Your task to perform on an android device: turn off translation in the chrome app Image 0: 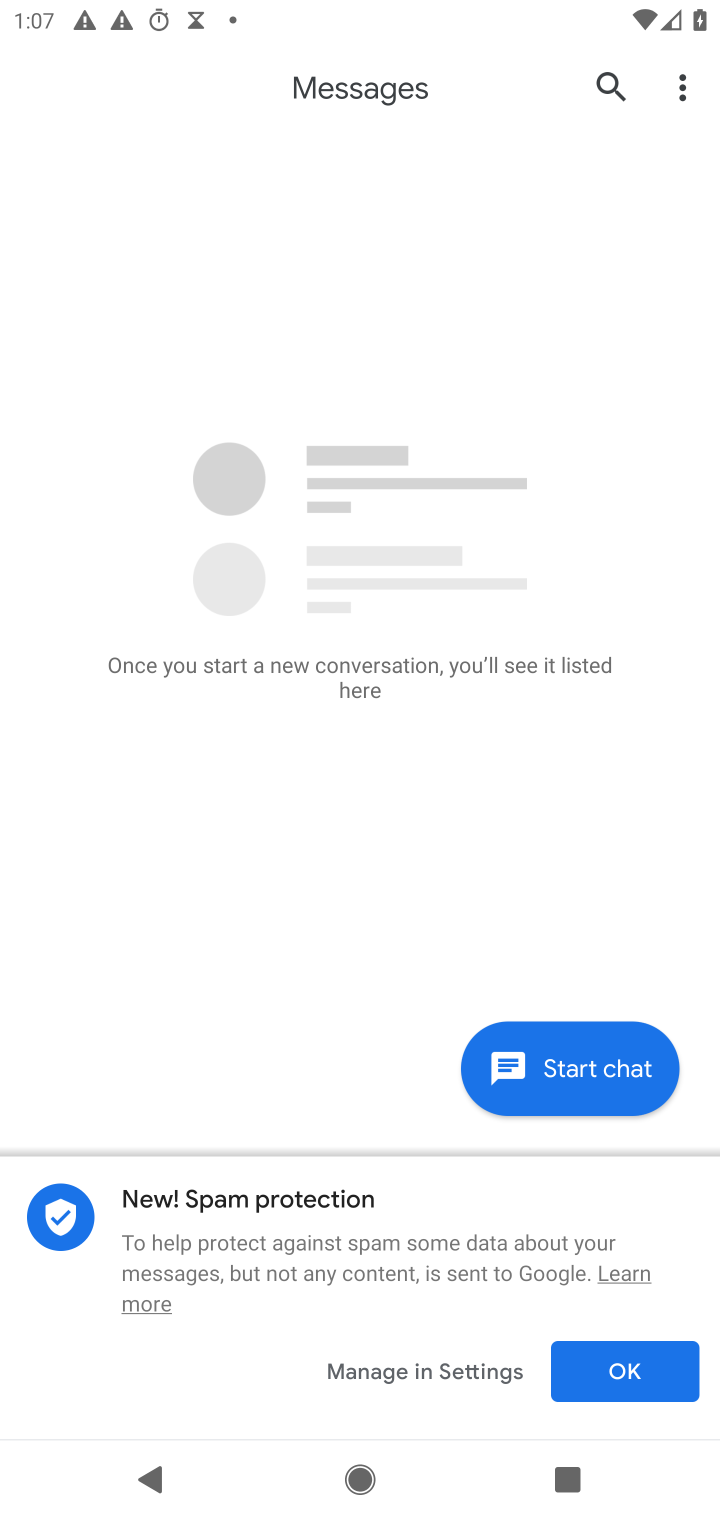
Step 0: press home button
Your task to perform on an android device: turn off translation in the chrome app Image 1: 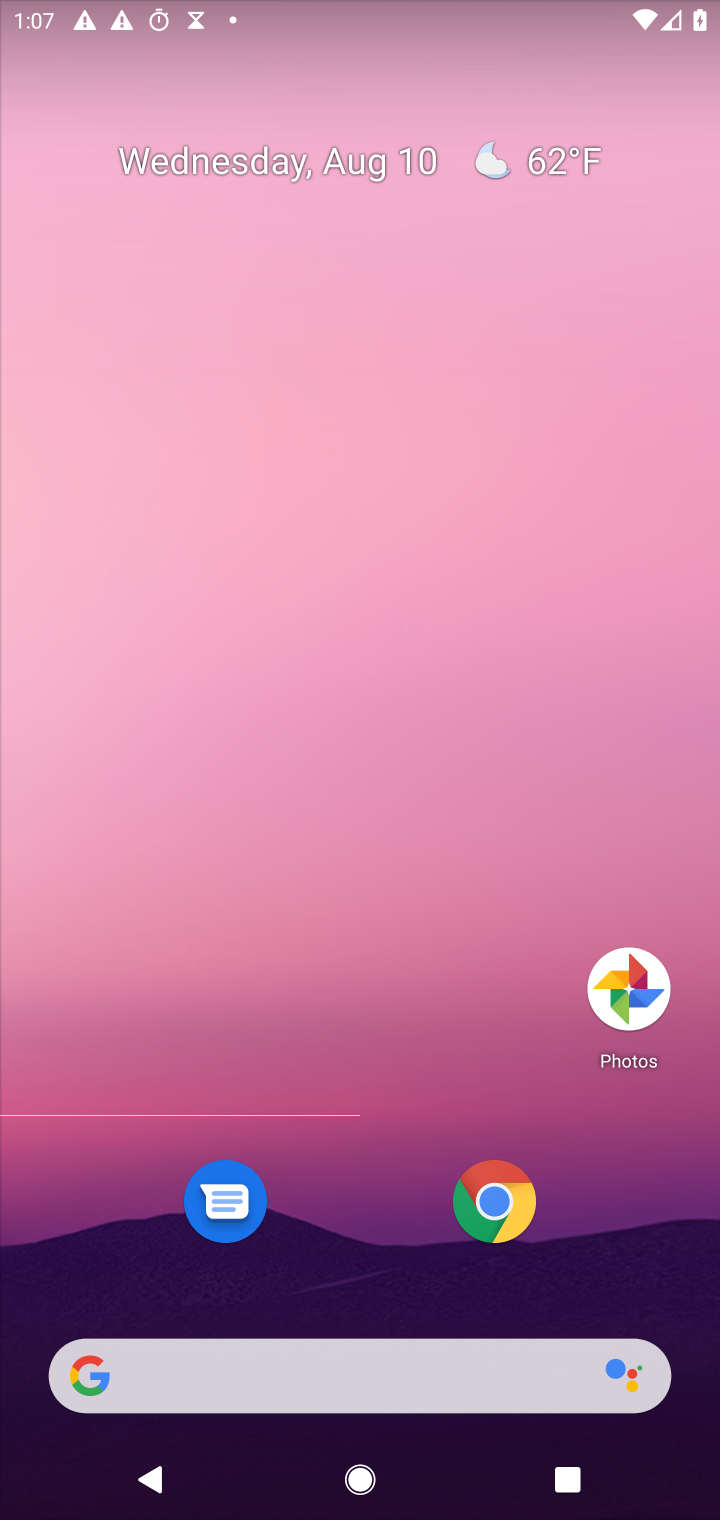
Step 1: click (492, 1225)
Your task to perform on an android device: turn off translation in the chrome app Image 2: 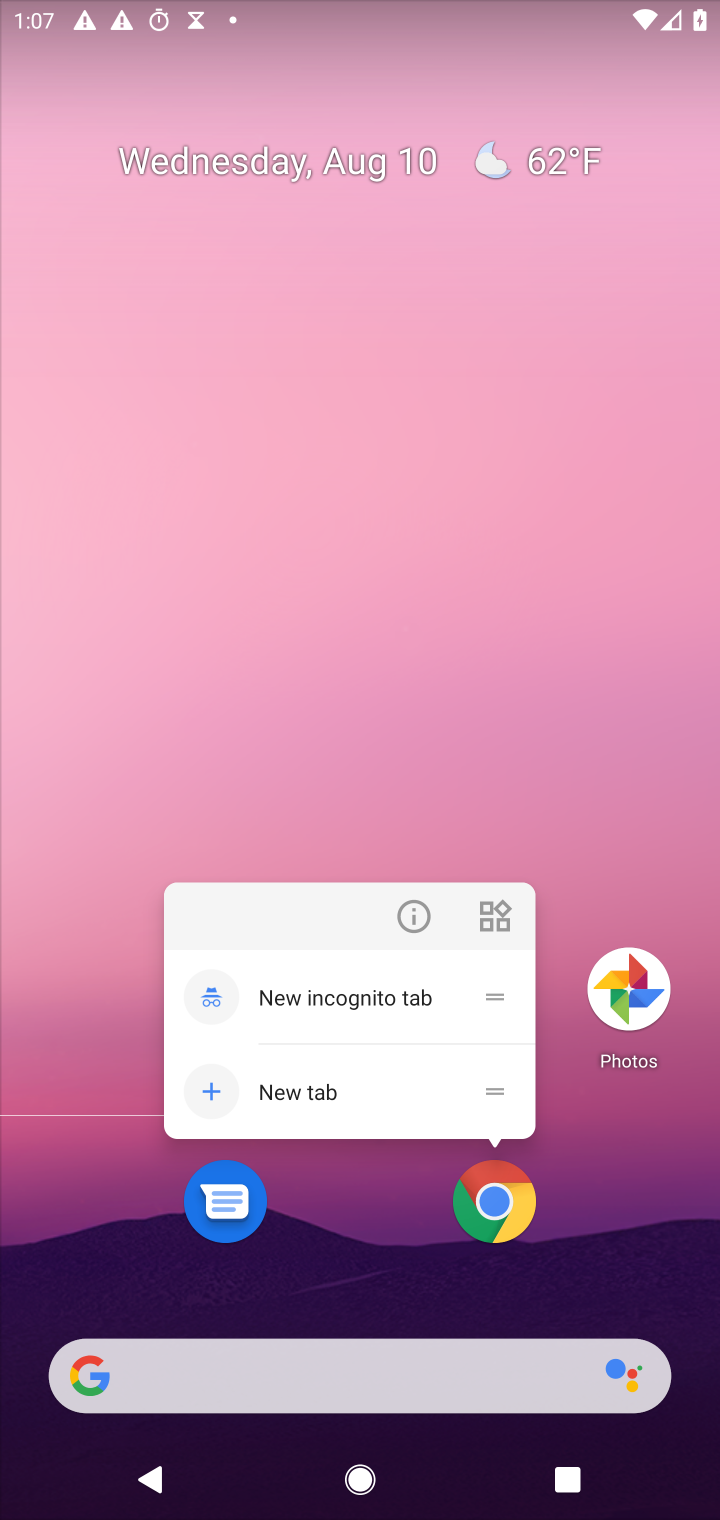
Step 2: click (508, 1208)
Your task to perform on an android device: turn off translation in the chrome app Image 3: 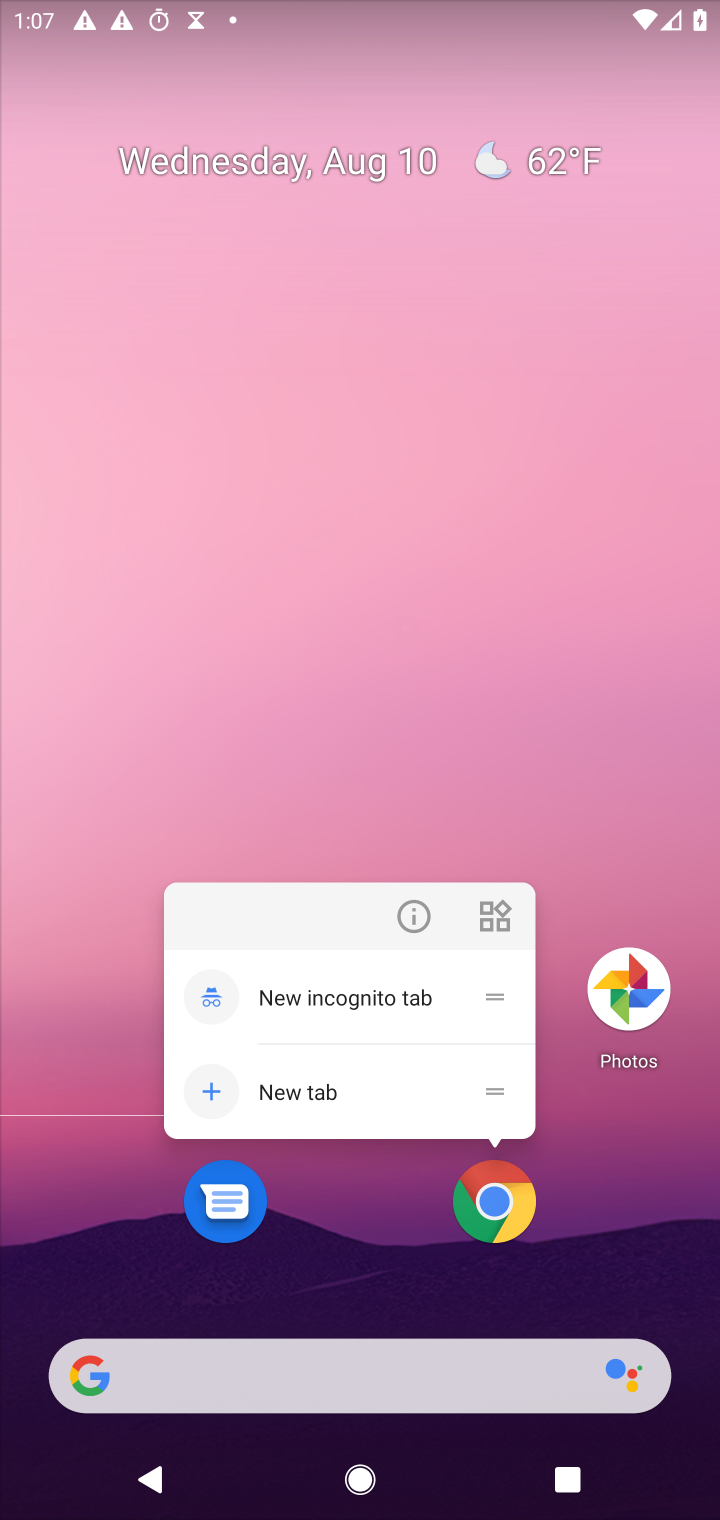
Step 3: click (505, 1211)
Your task to perform on an android device: turn off translation in the chrome app Image 4: 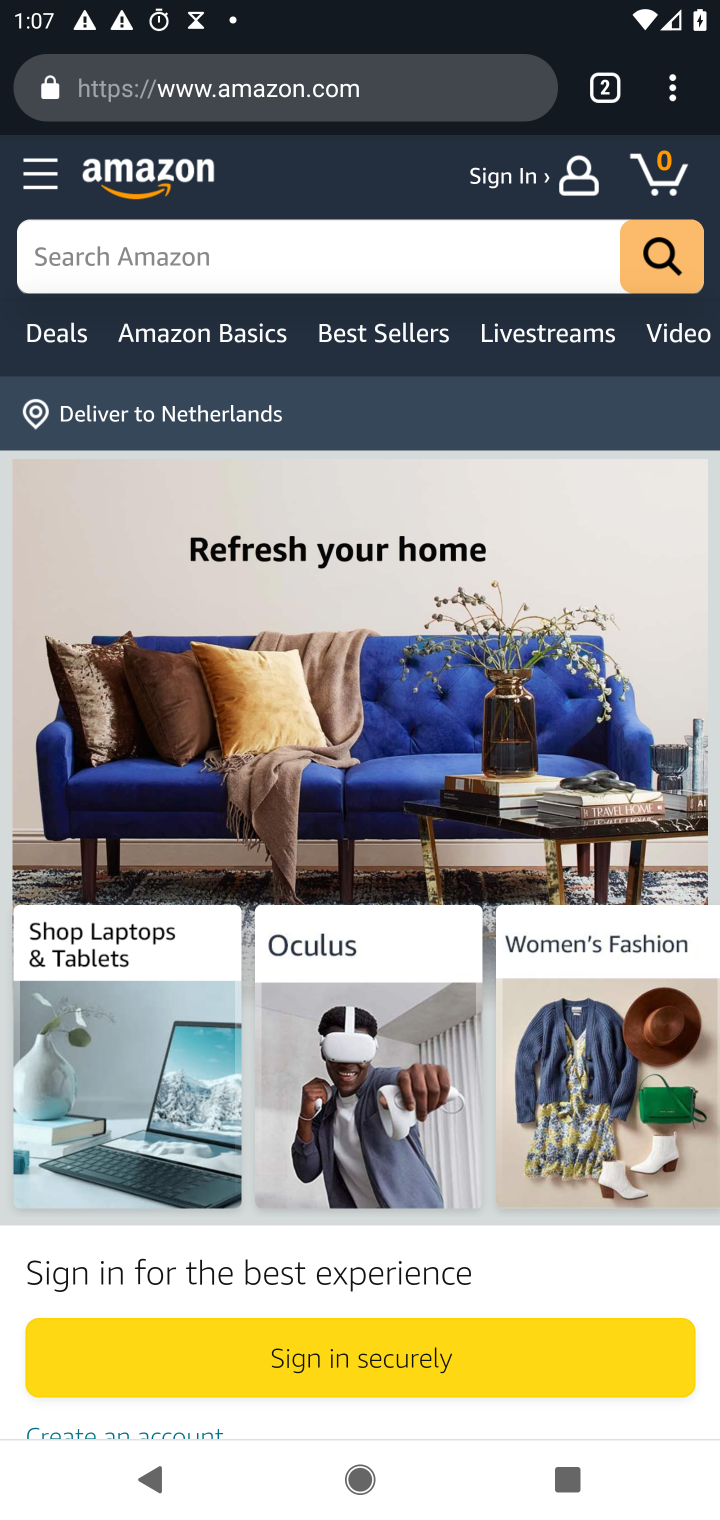
Step 4: drag from (669, 97) to (366, 1056)
Your task to perform on an android device: turn off translation in the chrome app Image 5: 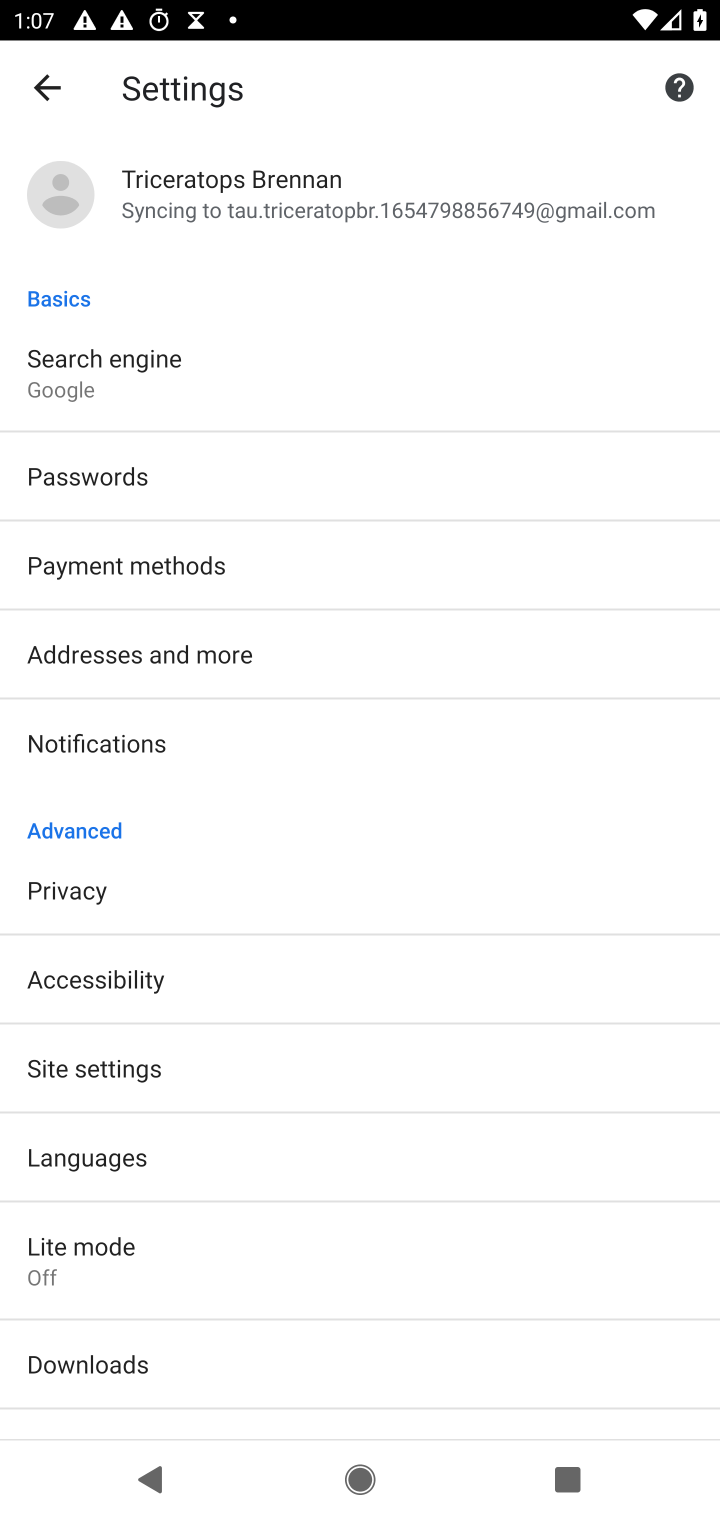
Step 5: click (92, 1147)
Your task to perform on an android device: turn off translation in the chrome app Image 6: 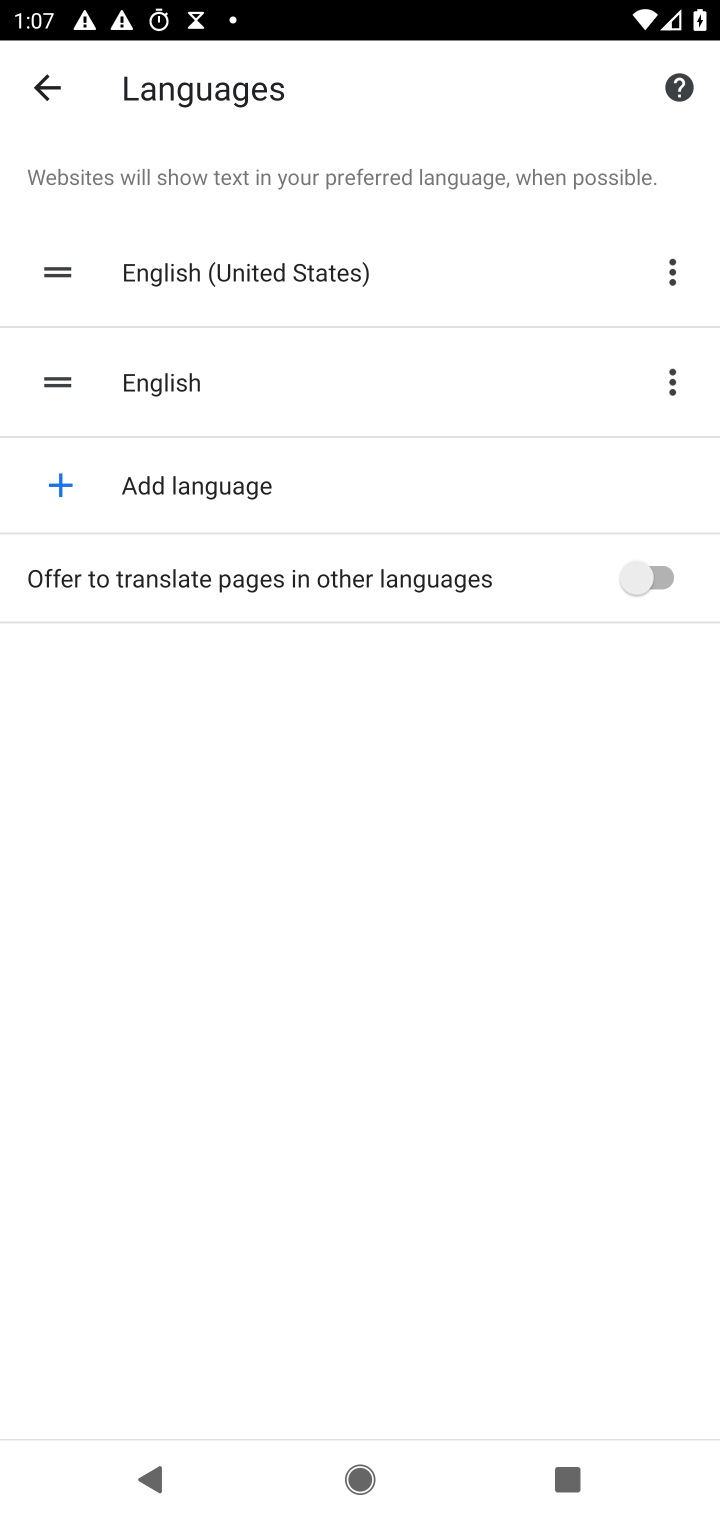
Step 6: task complete